Your task to perform on an android device: When is my next appointment? Image 0: 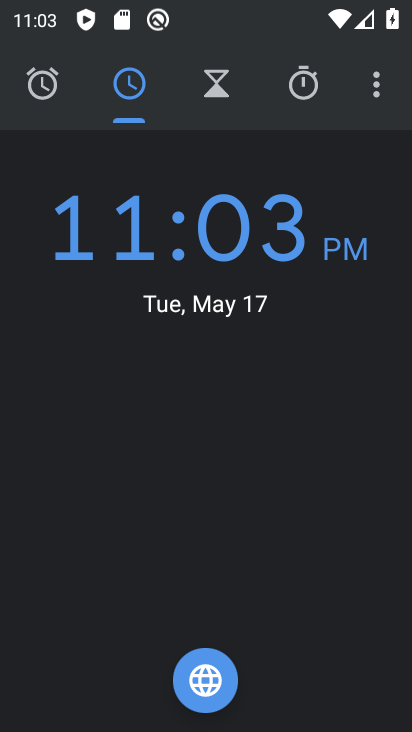
Step 0: press home button
Your task to perform on an android device: When is my next appointment? Image 1: 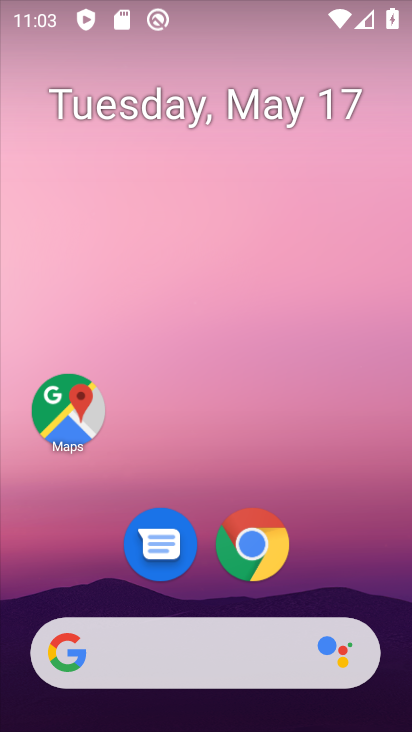
Step 1: drag from (323, 645) to (338, 1)
Your task to perform on an android device: When is my next appointment? Image 2: 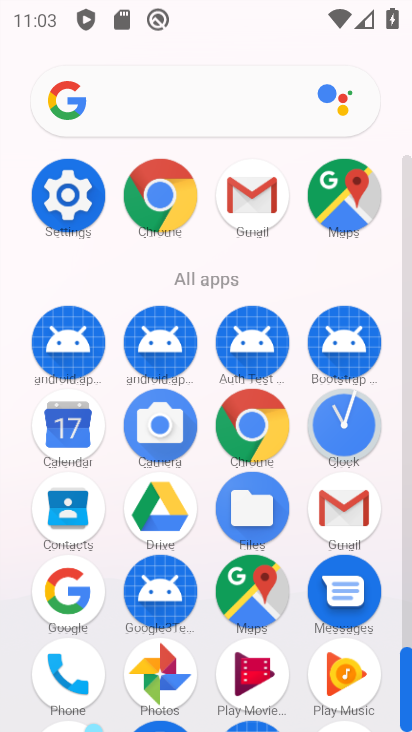
Step 2: click (238, 446)
Your task to perform on an android device: When is my next appointment? Image 3: 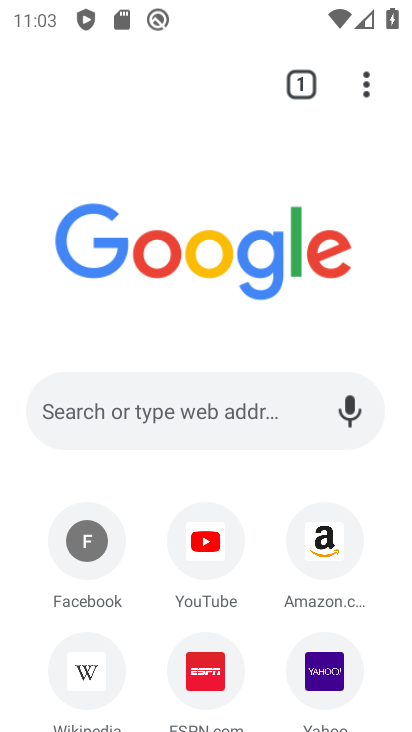
Step 3: task complete